Your task to perform on an android device: Set an alarm for 7am Image 0: 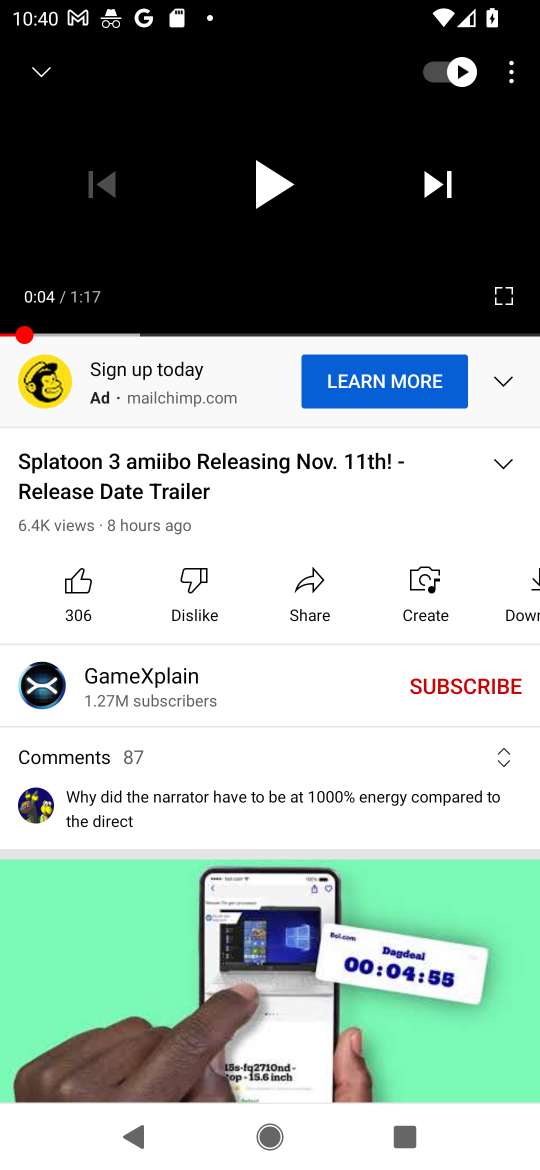
Step 0: press home button
Your task to perform on an android device: Set an alarm for 7am Image 1: 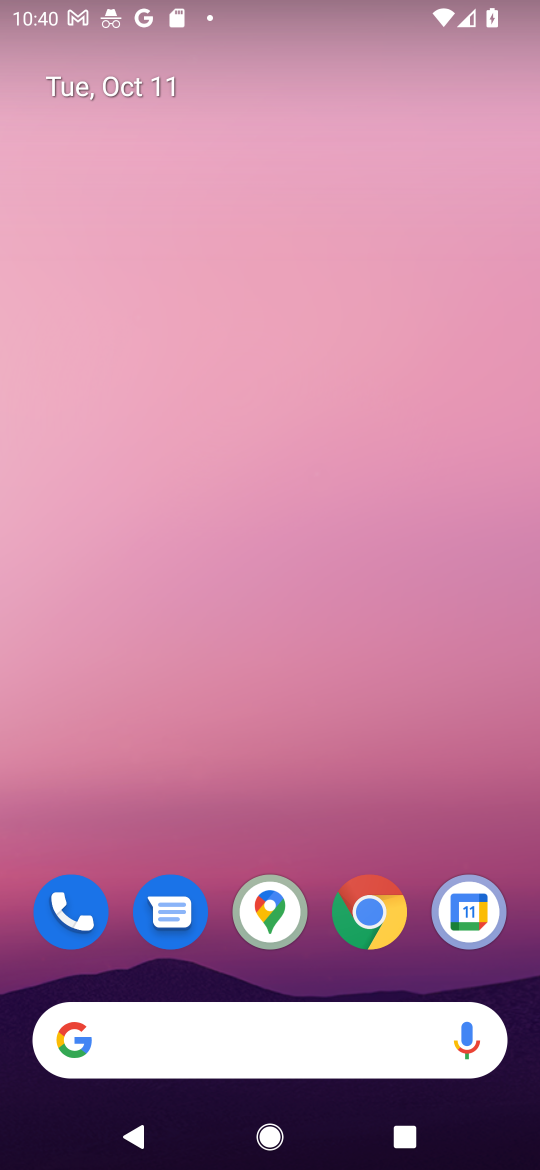
Step 1: drag from (306, 644) to (318, 191)
Your task to perform on an android device: Set an alarm for 7am Image 2: 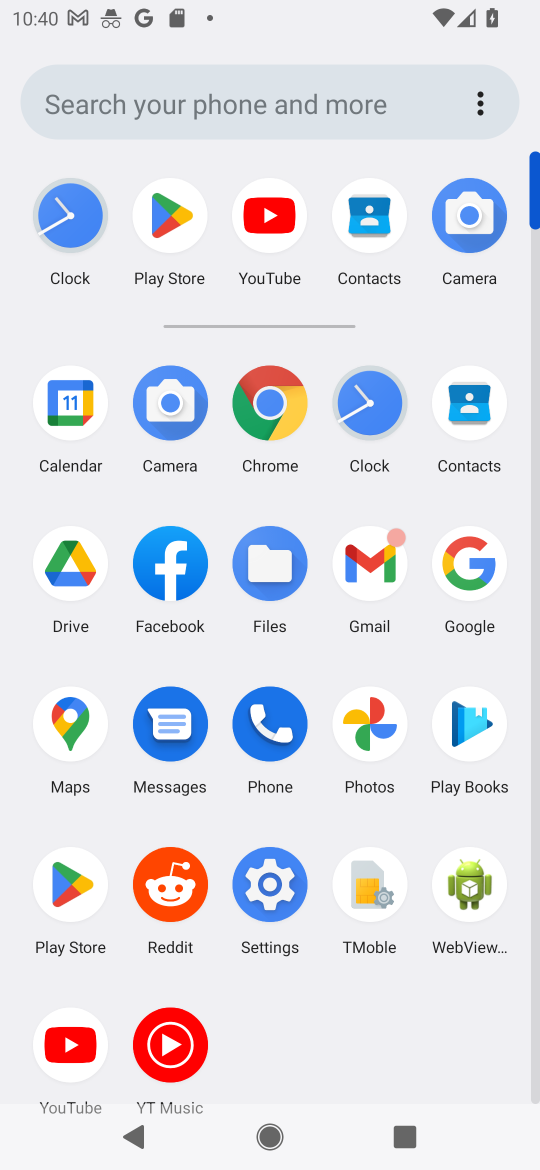
Step 2: click (369, 399)
Your task to perform on an android device: Set an alarm for 7am Image 3: 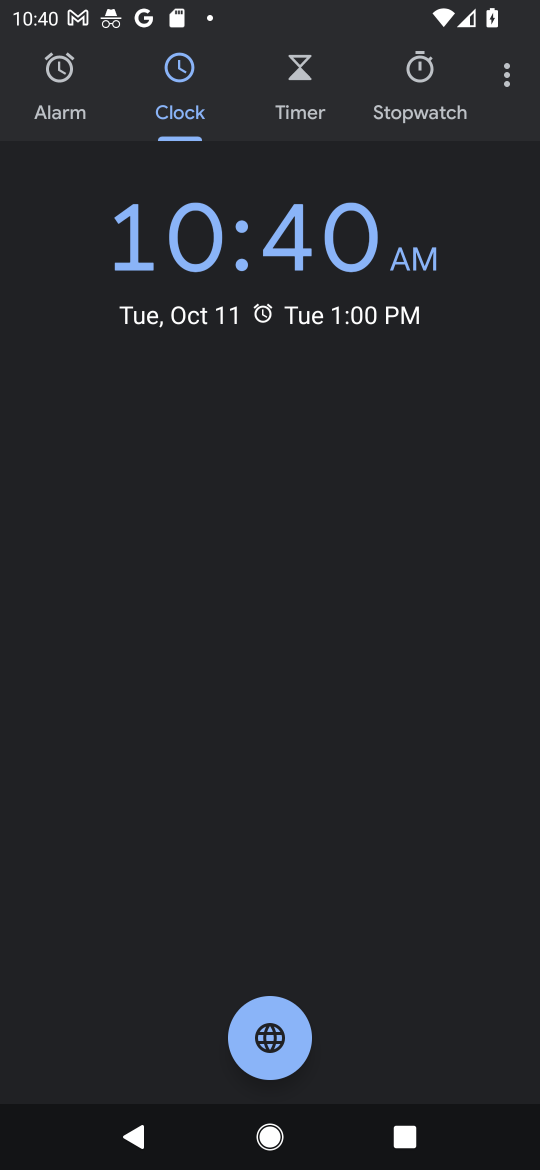
Step 3: click (75, 96)
Your task to perform on an android device: Set an alarm for 7am Image 4: 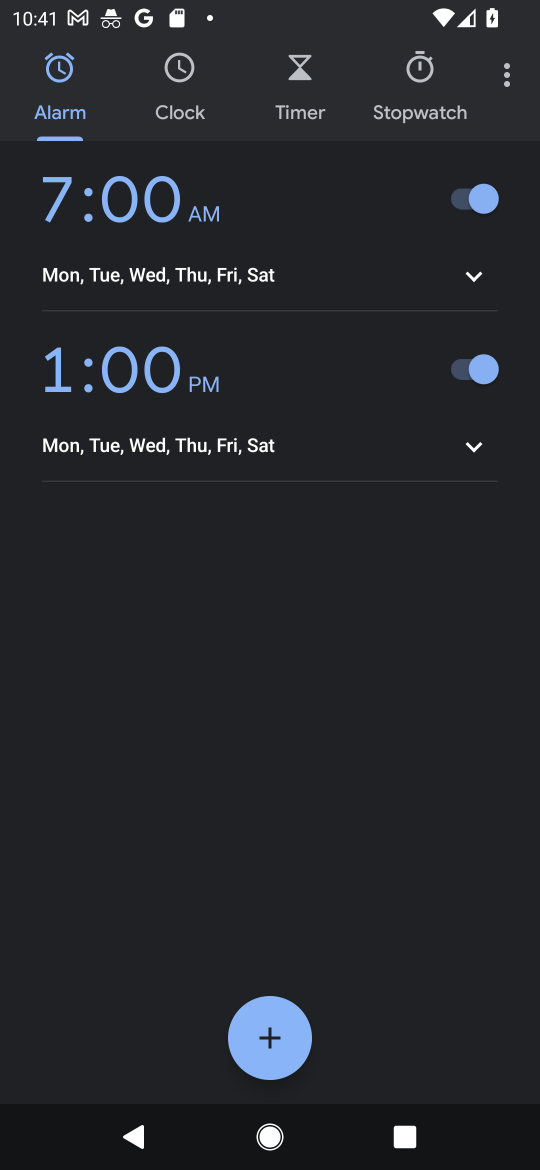
Step 4: click (270, 1040)
Your task to perform on an android device: Set an alarm for 7am Image 5: 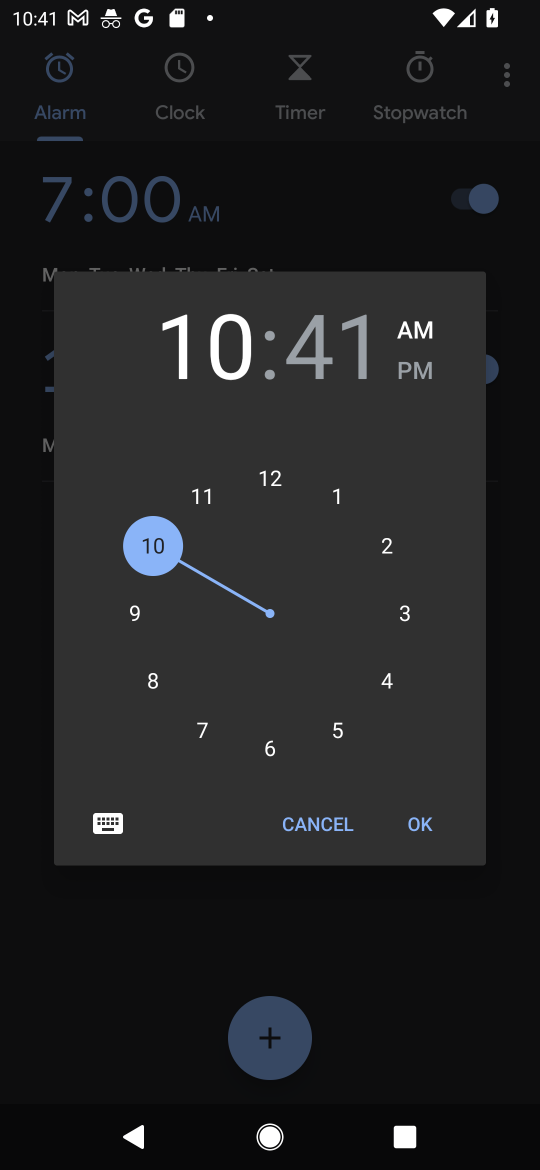
Step 5: click (204, 727)
Your task to perform on an android device: Set an alarm for 7am Image 6: 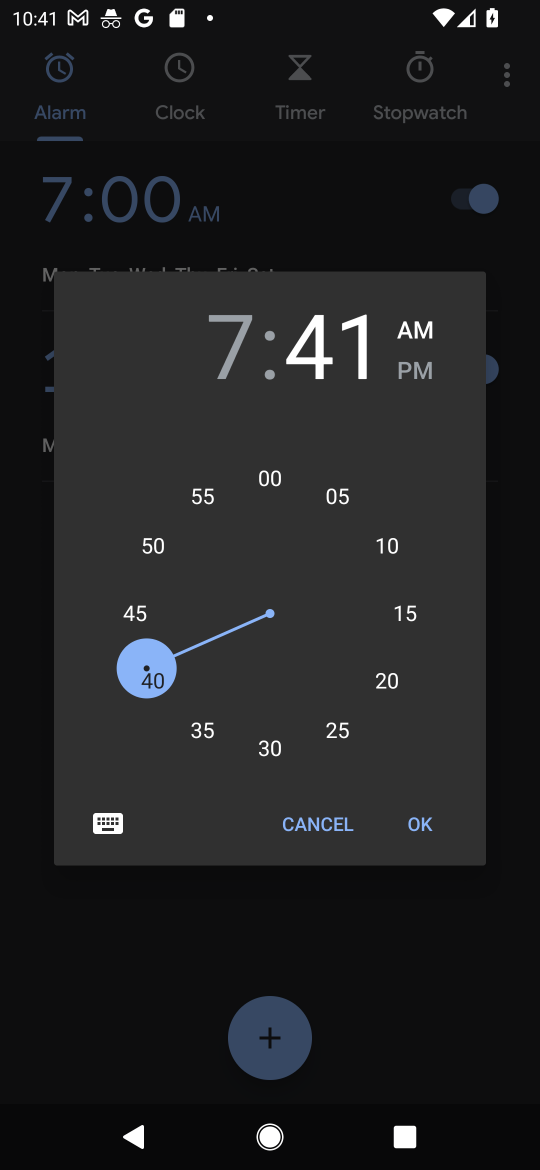
Step 6: click (264, 480)
Your task to perform on an android device: Set an alarm for 7am Image 7: 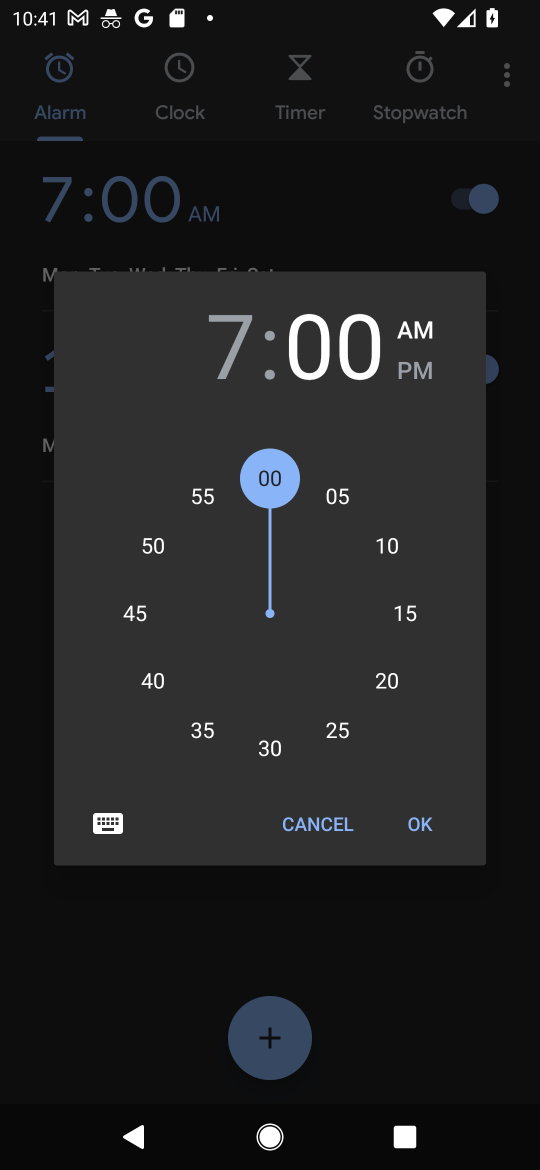
Step 7: click (417, 820)
Your task to perform on an android device: Set an alarm for 7am Image 8: 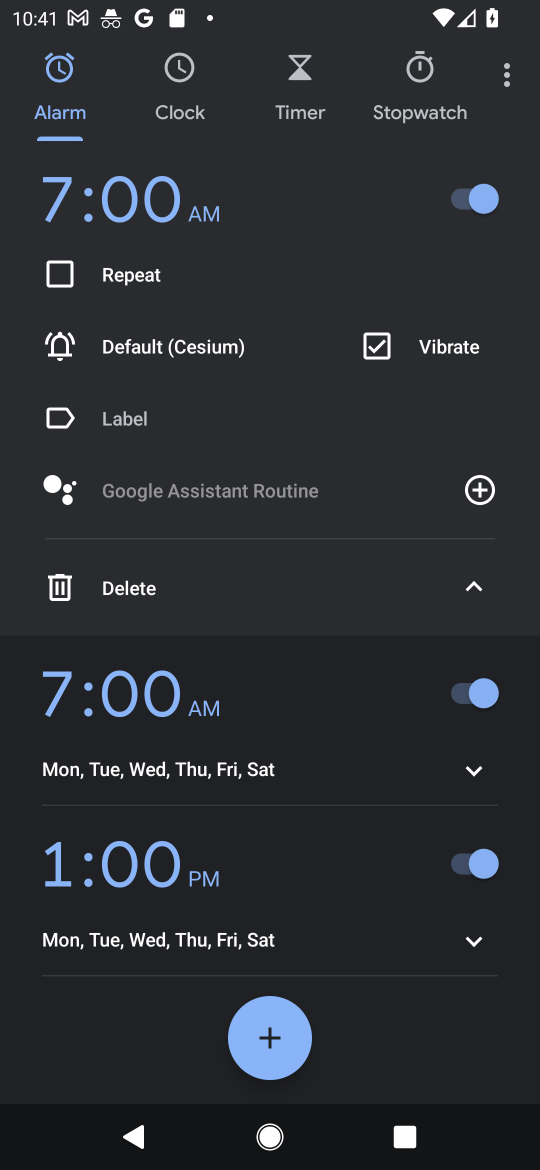
Step 8: click (64, 270)
Your task to perform on an android device: Set an alarm for 7am Image 9: 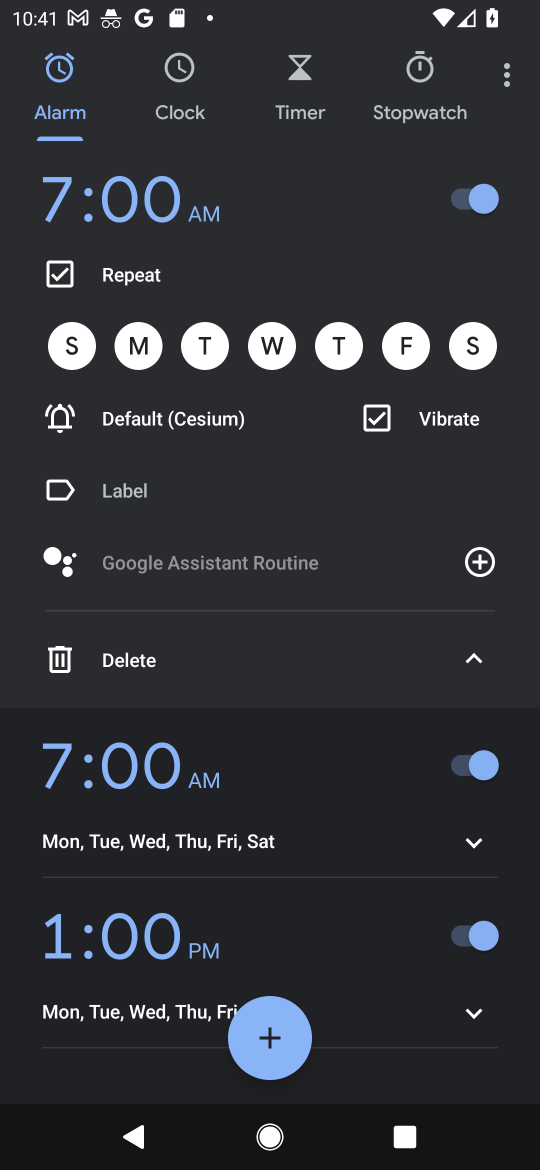
Step 9: click (80, 355)
Your task to perform on an android device: Set an alarm for 7am Image 10: 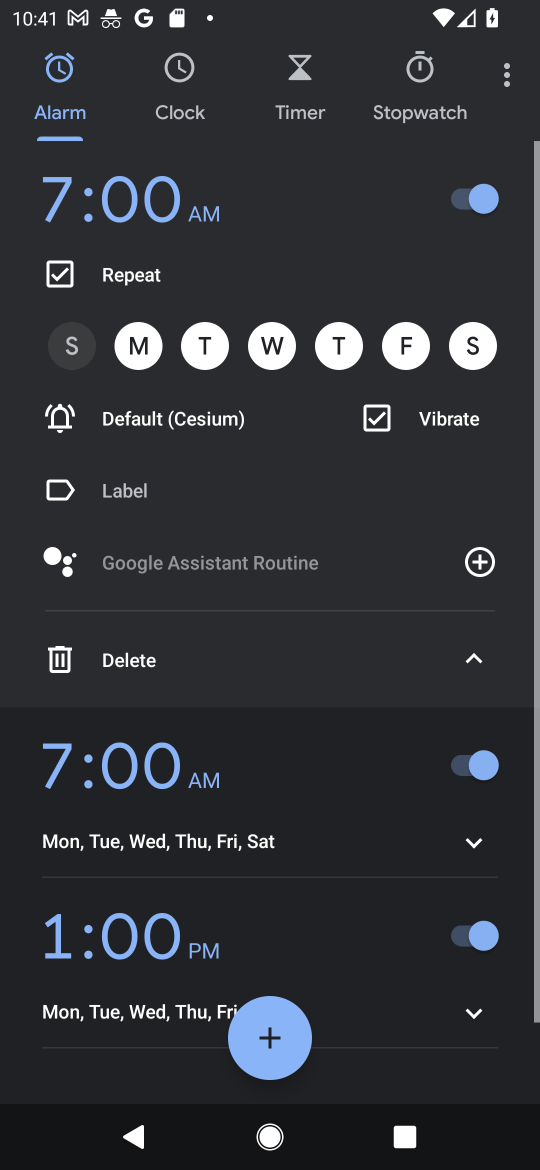
Step 10: click (480, 351)
Your task to perform on an android device: Set an alarm for 7am Image 11: 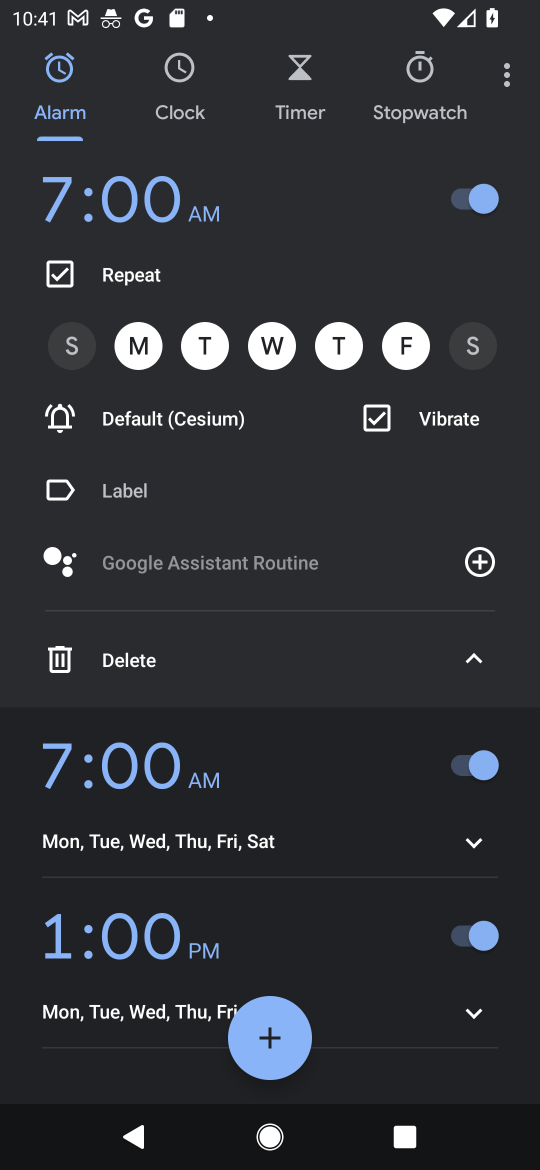
Step 11: click (392, 356)
Your task to perform on an android device: Set an alarm for 7am Image 12: 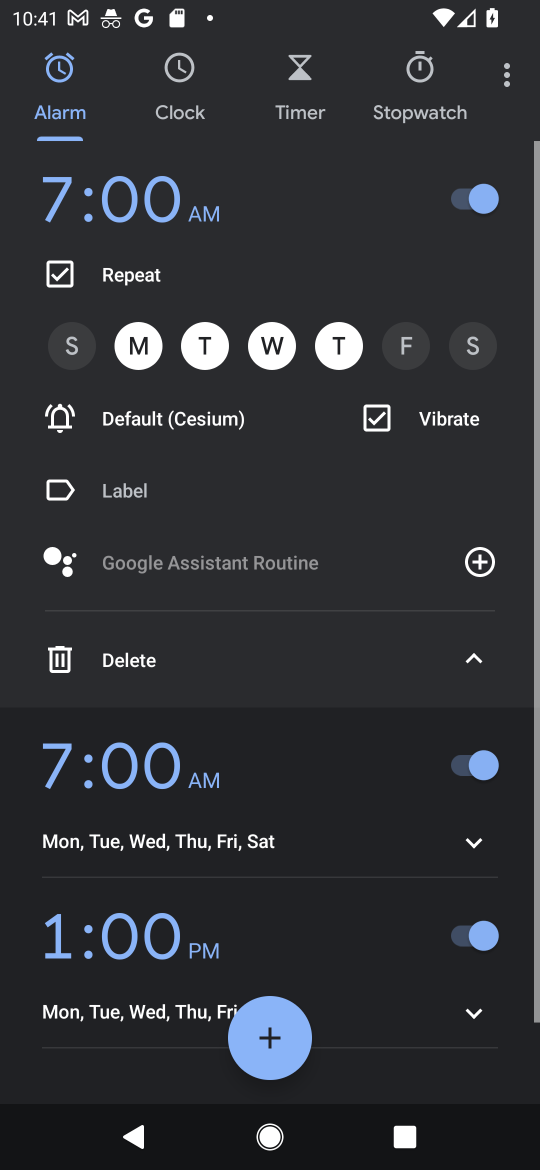
Step 12: click (476, 654)
Your task to perform on an android device: Set an alarm for 7am Image 13: 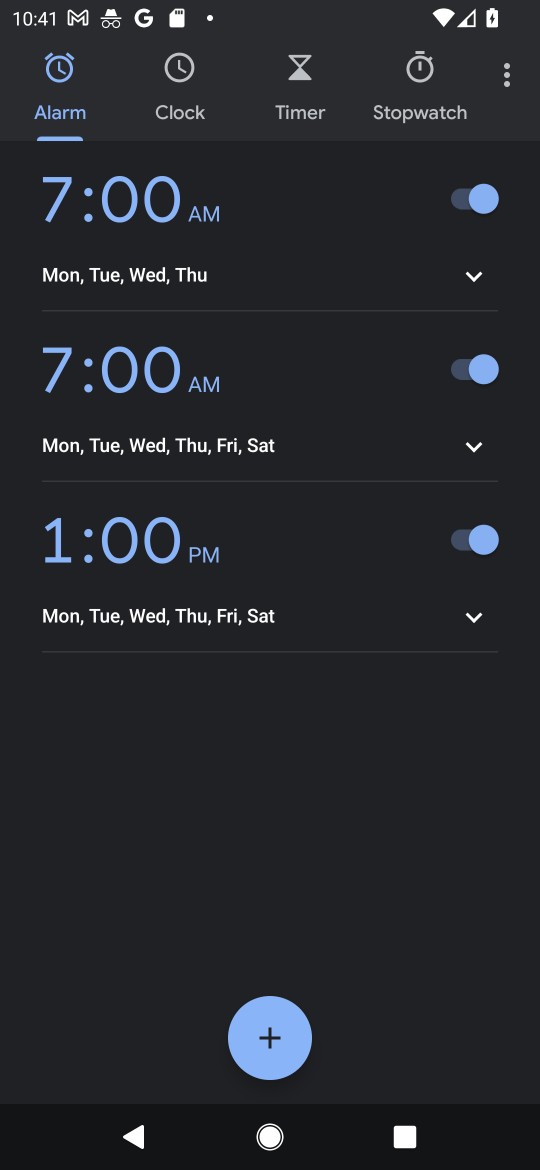
Step 13: task complete